Your task to perform on an android device: Search for "razer huntsman" on bestbuy, select the first entry, add it to the cart, then select checkout. Image 0: 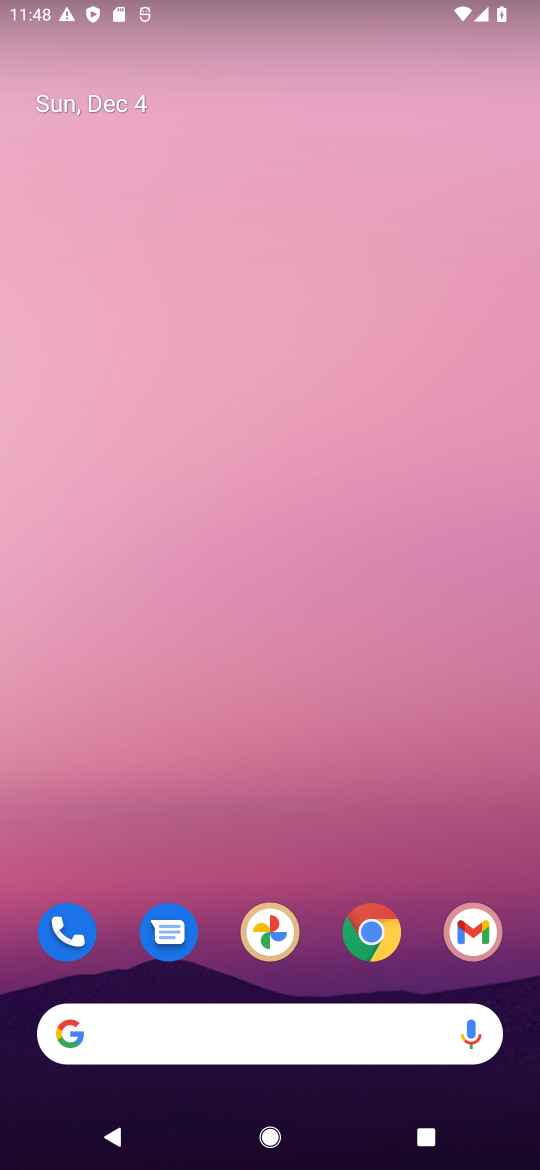
Step 0: click (365, 927)
Your task to perform on an android device: Search for "razer huntsman" on bestbuy, select the first entry, add it to the cart, then select checkout. Image 1: 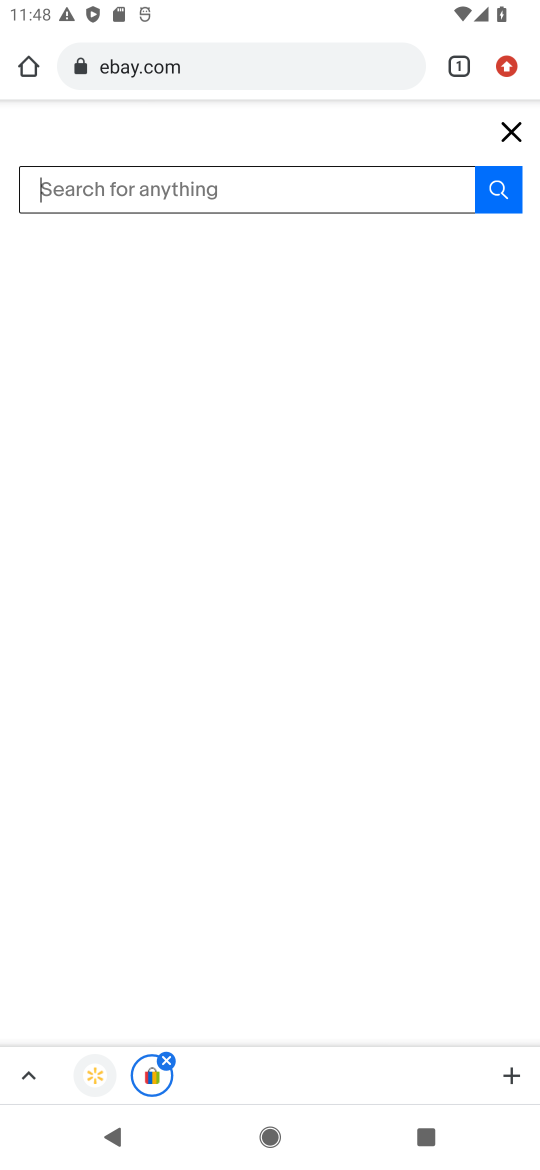
Step 1: click (236, 62)
Your task to perform on an android device: Search for "razer huntsman" on bestbuy, select the first entry, add it to the cart, then select checkout. Image 2: 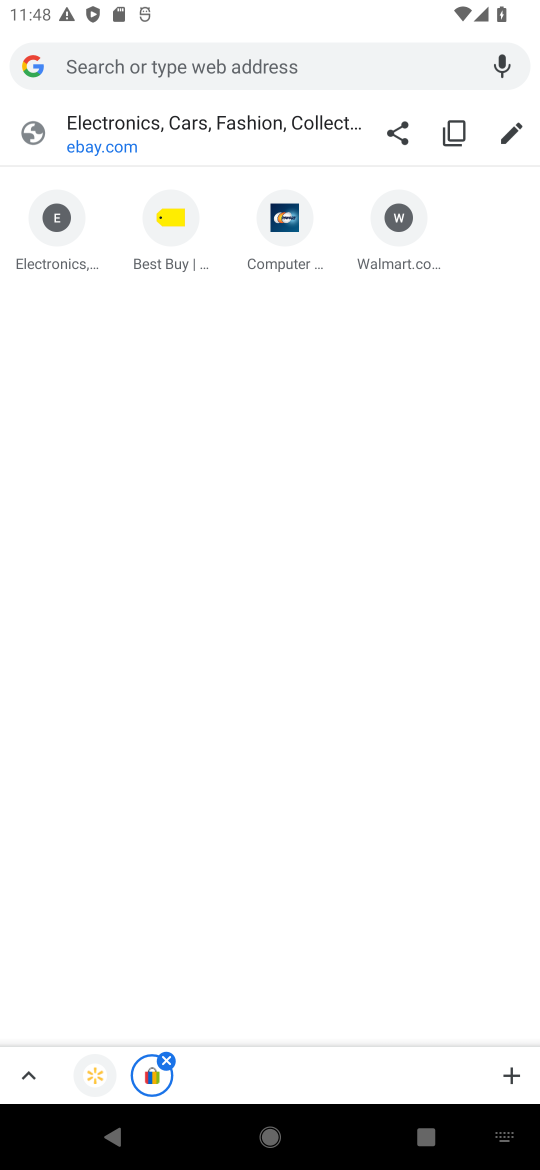
Step 2: click (160, 227)
Your task to perform on an android device: Search for "razer huntsman" on bestbuy, select the first entry, add it to the cart, then select checkout. Image 3: 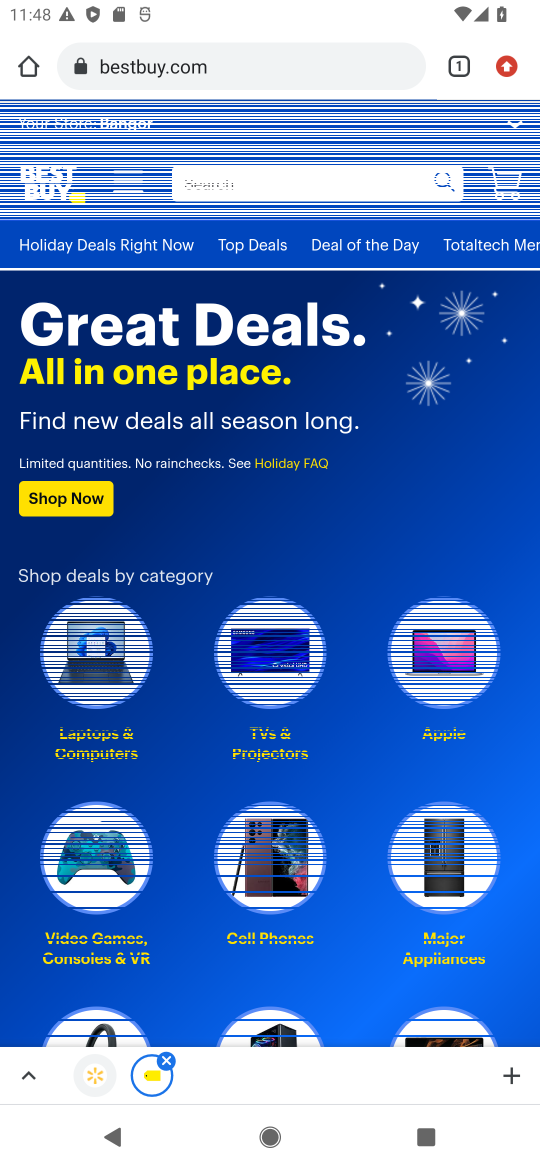
Step 3: click (377, 185)
Your task to perform on an android device: Search for "razer huntsman" on bestbuy, select the first entry, add it to the cart, then select checkout. Image 4: 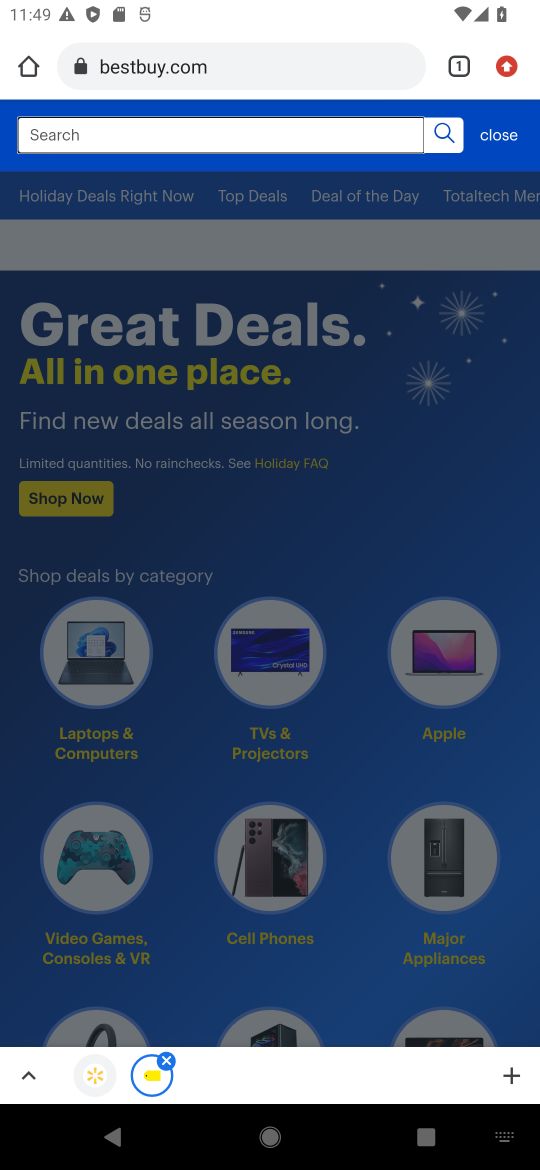
Step 4: type "razer huntsman"
Your task to perform on an android device: Search for "razer huntsman" on bestbuy, select the first entry, add it to the cart, then select checkout. Image 5: 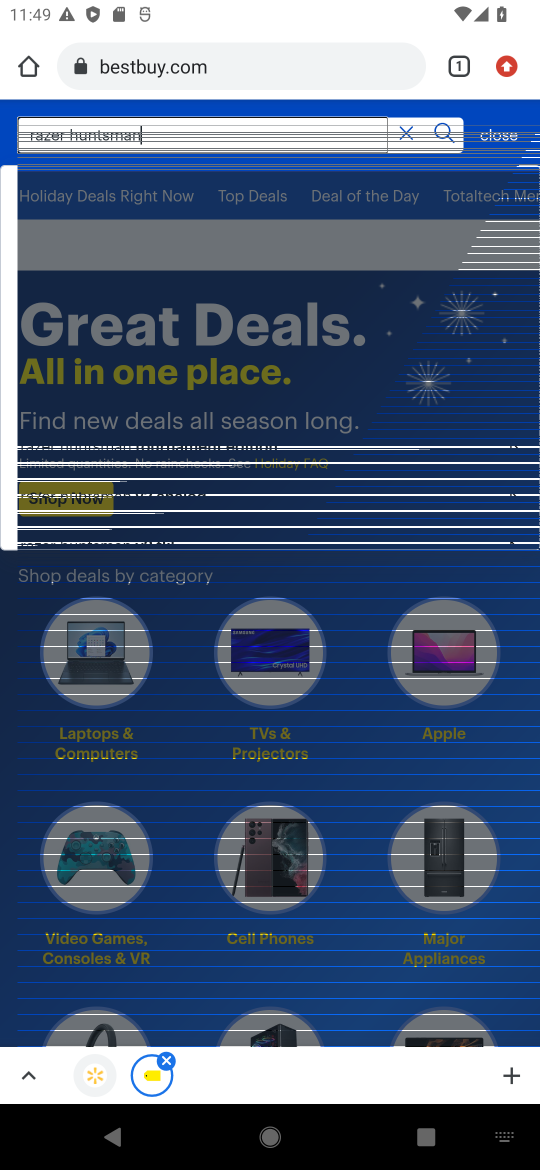
Step 5: click (119, 197)
Your task to perform on an android device: Search for "razer huntsman" on bestbuy, select the first entry, add it to the cart, then select checkout. Image 6: 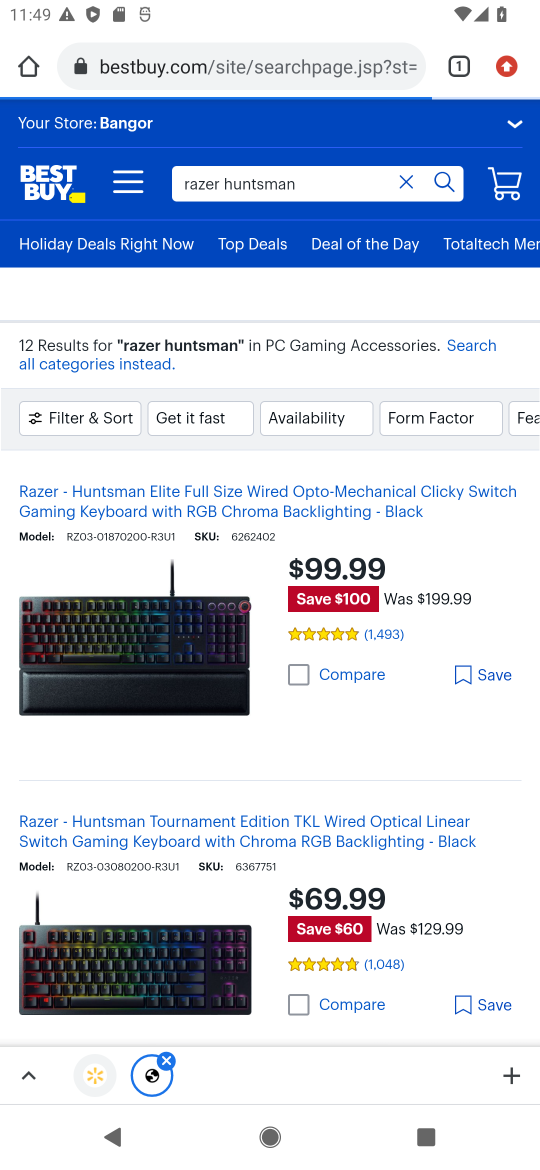
Step 6: click (206, 676)
Your task to perform on an android device: Search for "razer huntsman" on bestbuy, select the first entry, add it to the cart, then select checkout. Image 7: 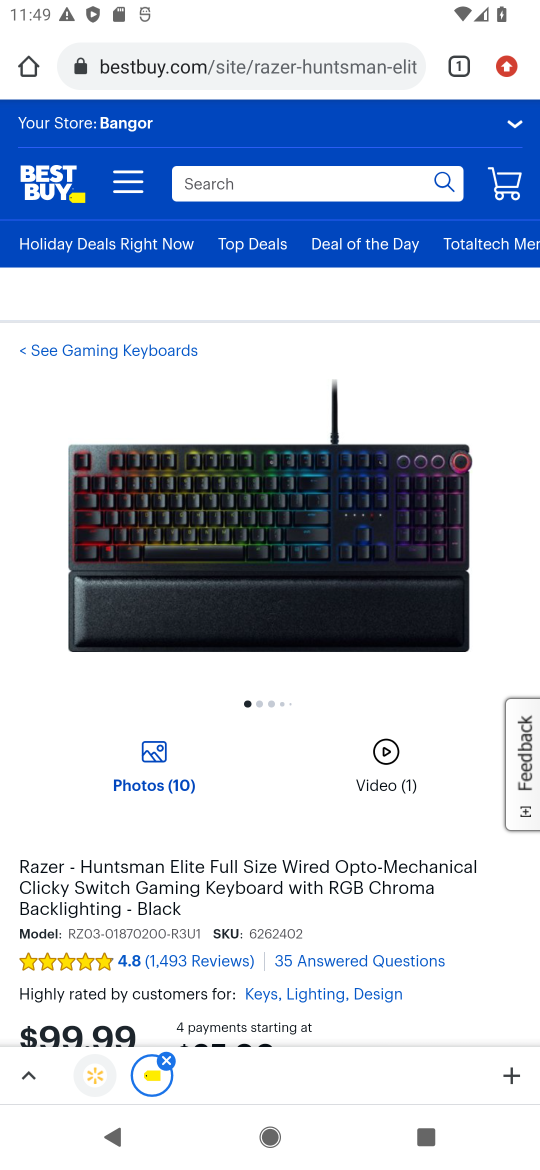
Step 7: drag from (476, 944) to (425, 665)
Your task to perform on an android device: Search for "razer huntsman" on bestbuy, select the first entry, add it to the cart, then select checkout. Image 8: 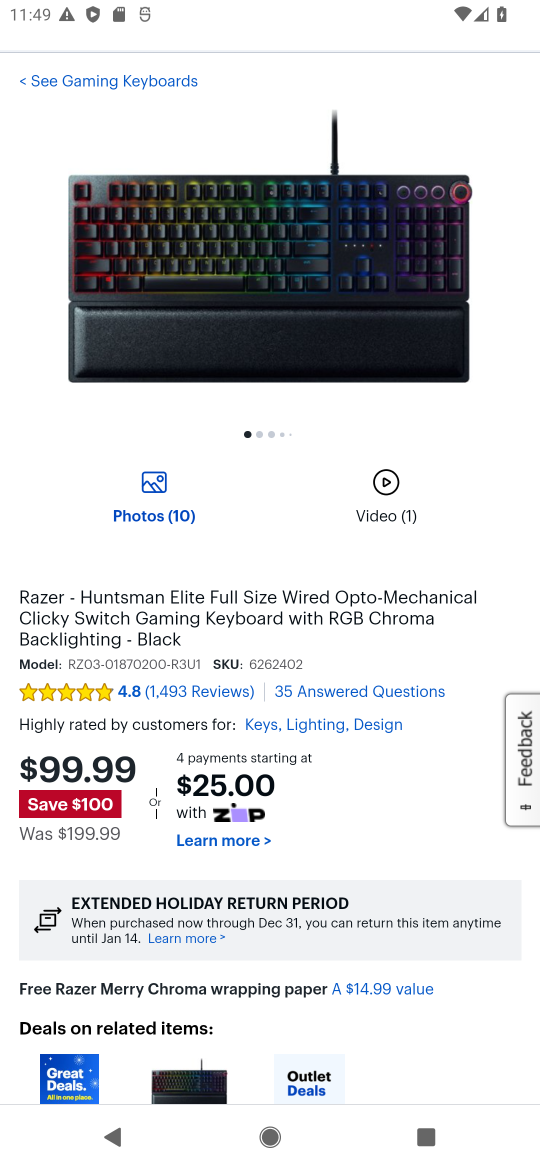
Step 8: drag from (398, 868) to (402, 534)
Your task to perform on an android device: Search for "razer huntsman" on bestbuy, select the first entry, add it to the cart, then select checkout. Image 9: 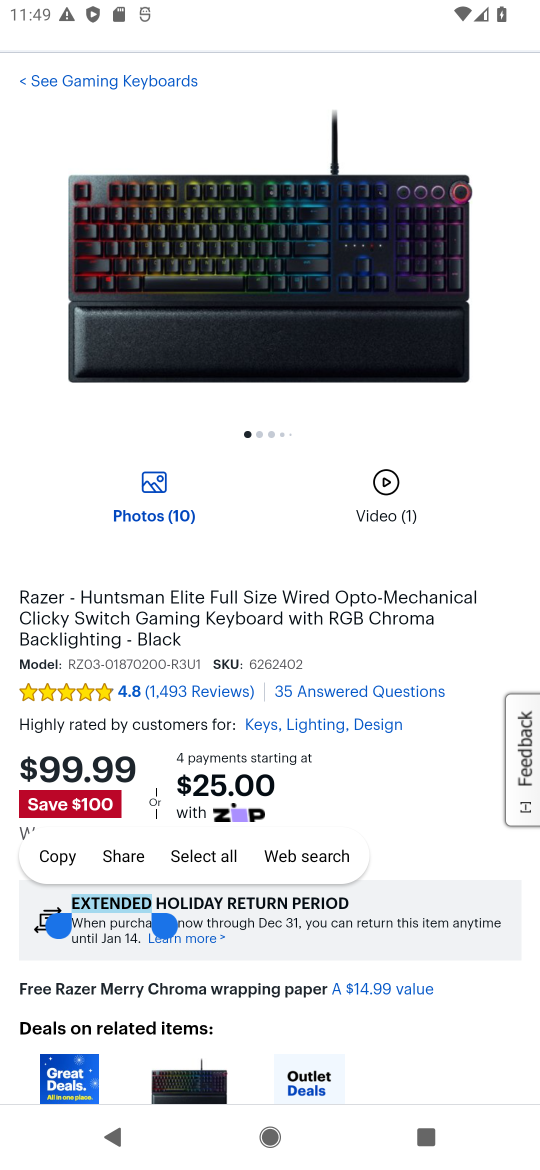
Step 9: click (395, 830)
Your task to perform on an android device: Search for "razer huntsman" on bestbuy, select the first entry, add it to the cart, then select checkout. Image 10: 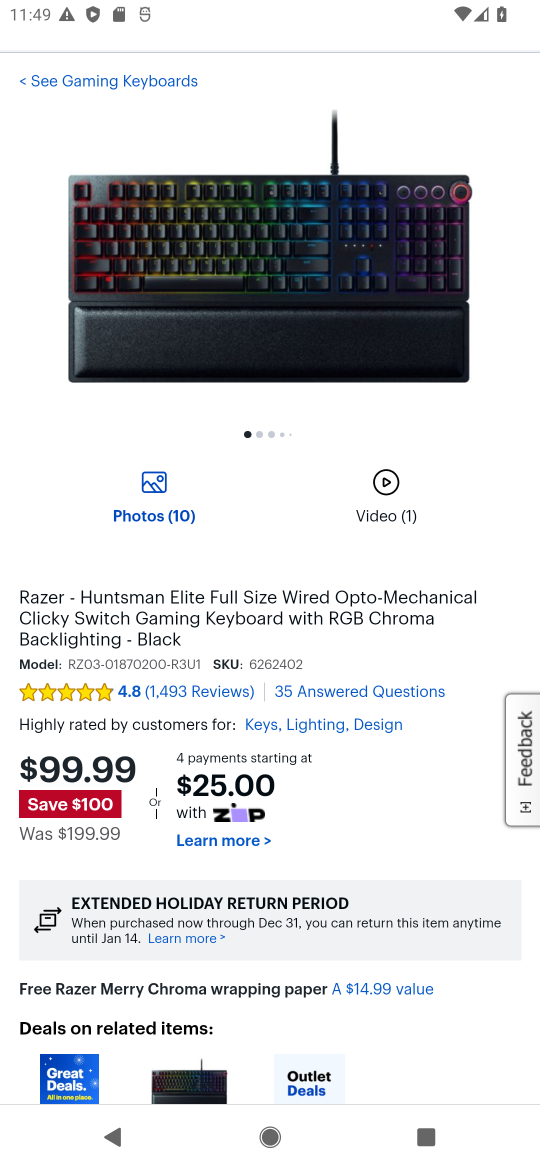
Step 10: click (413, 835)
Your task to perform on an android device: Search for "razer huntsman" on bestbuy, select the first entry, add it to the cart, then select checkout. Image 11: 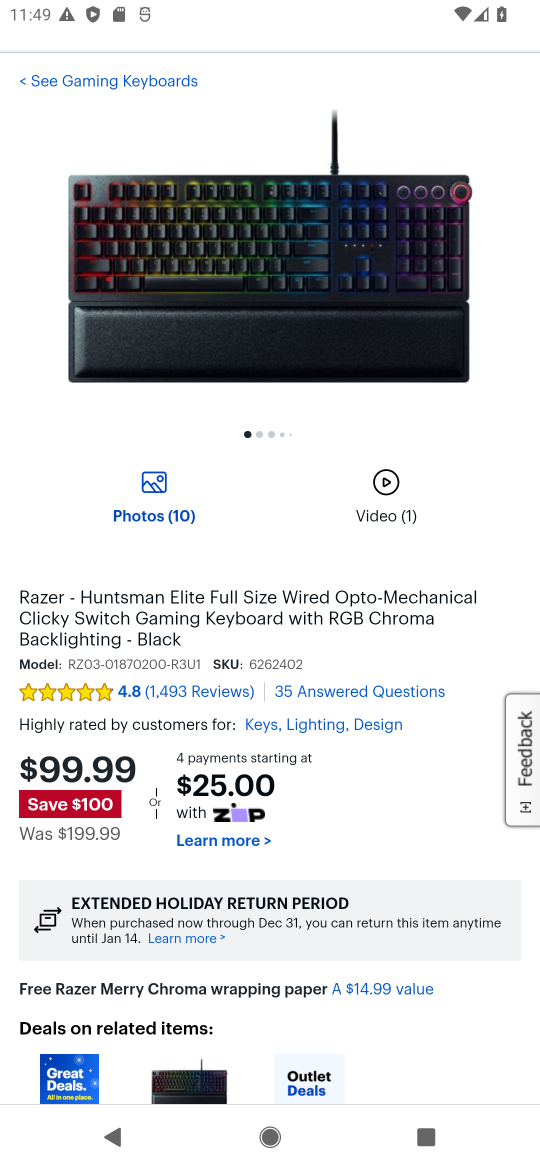
Step 11: task complete